Your task to perform on an android device: turn pop-ups off in chrome Image 0: 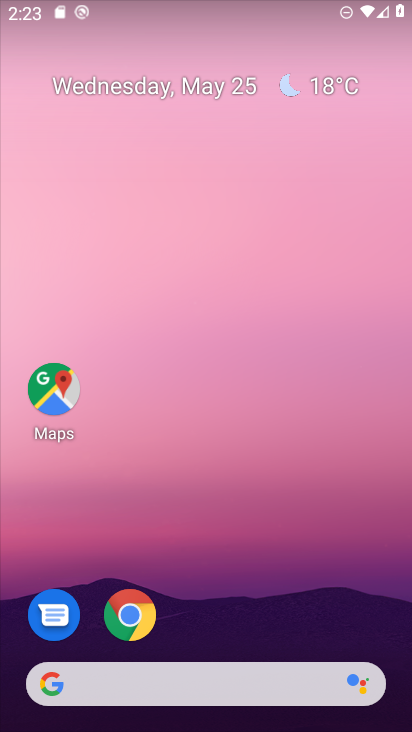
Step 0: click (143, 607)
Your task to perform on an android device: turn pop-ups off in chrome Image 1: 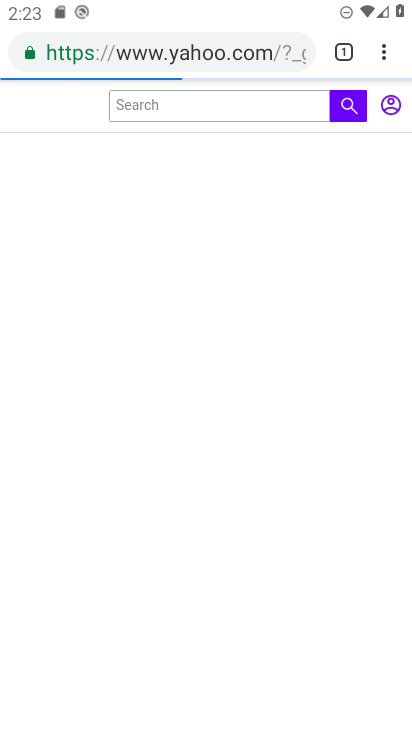
Step 1: click (382, 50)
Your task to perform on an android device: turn pop-ups off in chrome Image 2: 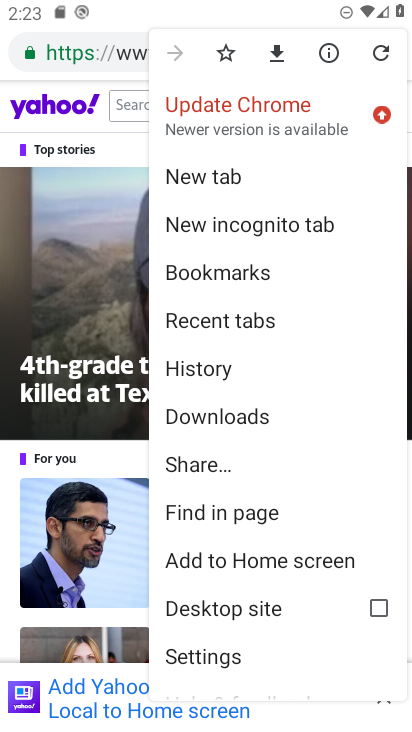
Step 2: click (248, 646)
Your task to perform on an android device: turn pop-ups off in chrome Image 3: 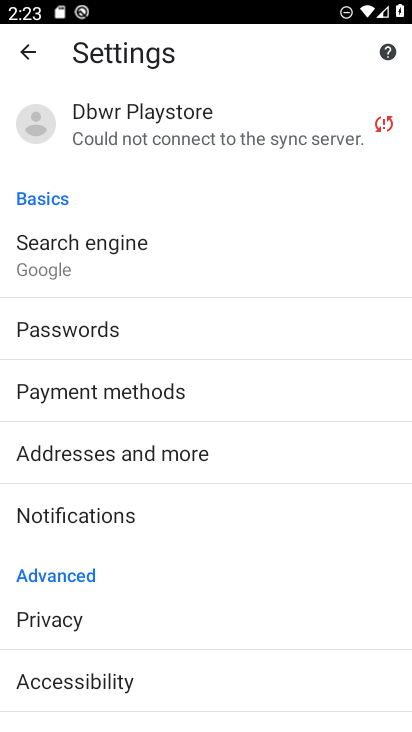
Step 3: drag from (240, 538) to (275, 214)
Your task to perform on an android device: turn pop-ups off in chrome Image 4: 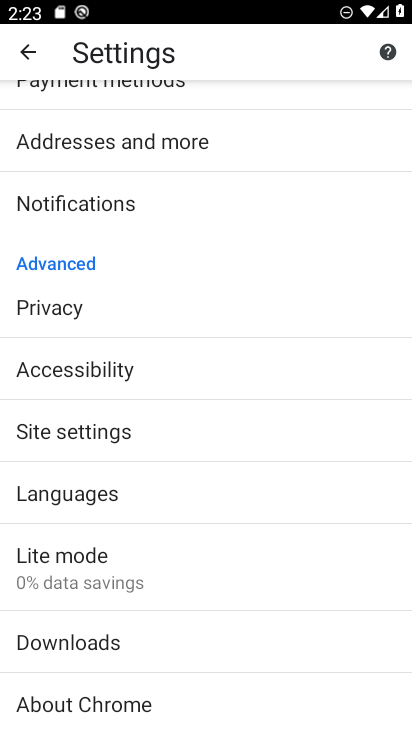
Step 4: click (200, 421)
Your task to perform on an android device: turn pop-ups off in chrome Image 5: 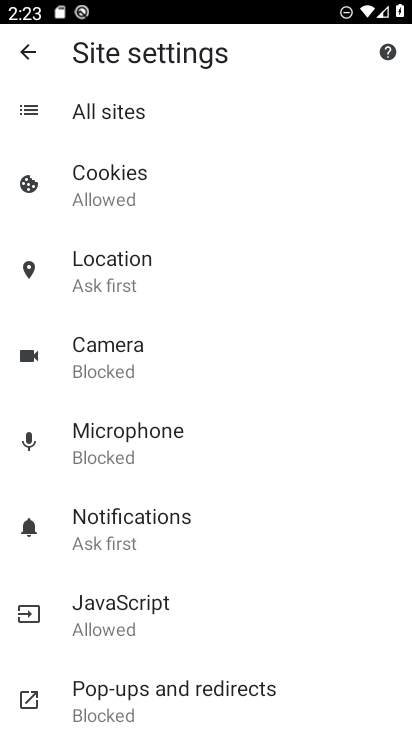
Step 5: click (205, 691)
Your task to perform on an android device: turn pop-ups off in chrome Image 6: 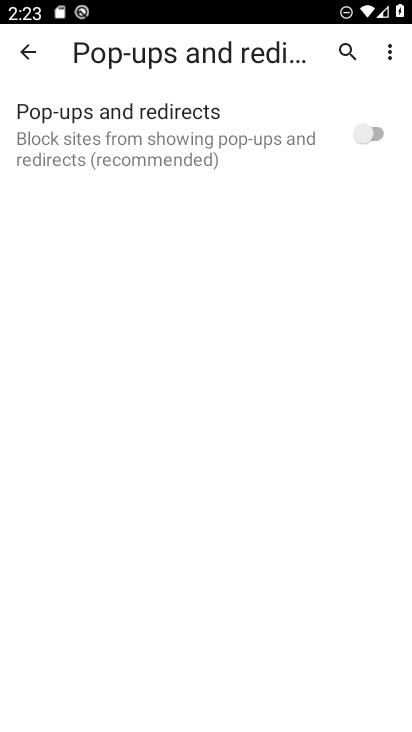
Step 6: task complete